Your task to perform on an android device: find snoozed emails in the gmail app Image 0: 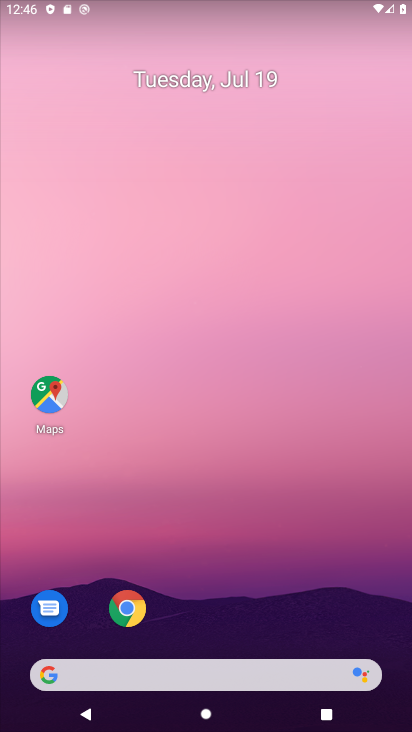
Step 0: drag from (325, 583) to (397, 22)
Your task to perform on an android device: find snoozed emails in the gmail app Image 1: 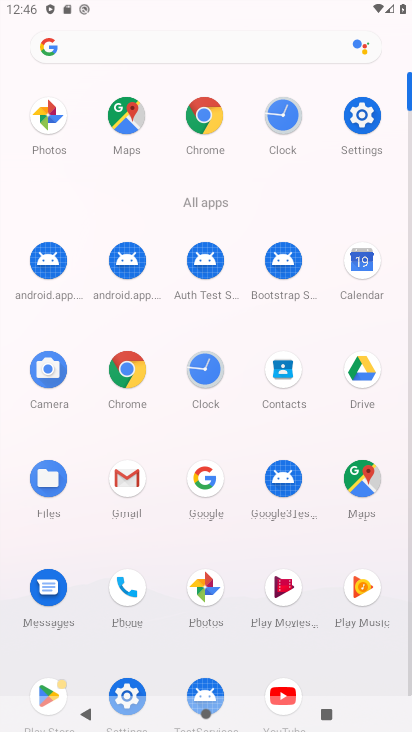
Step 1: click (120, 482)
Your task to perform on an android device: find snoozed emails in the gmail app Image 2: 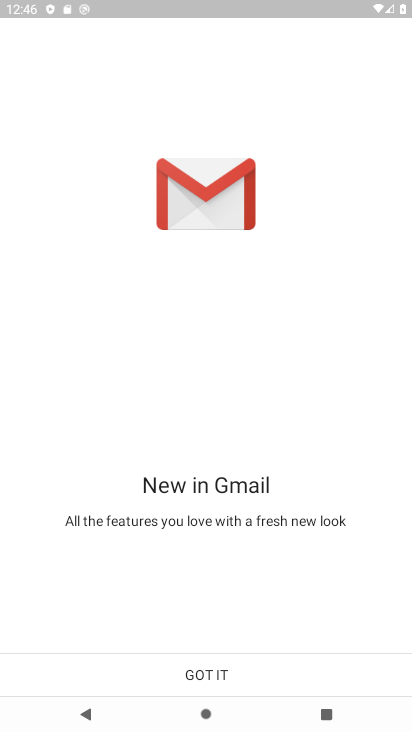
Step 2: click (203, 669)
Your task to perform on an android device: find snoozed emails in the gmail app Image 3: 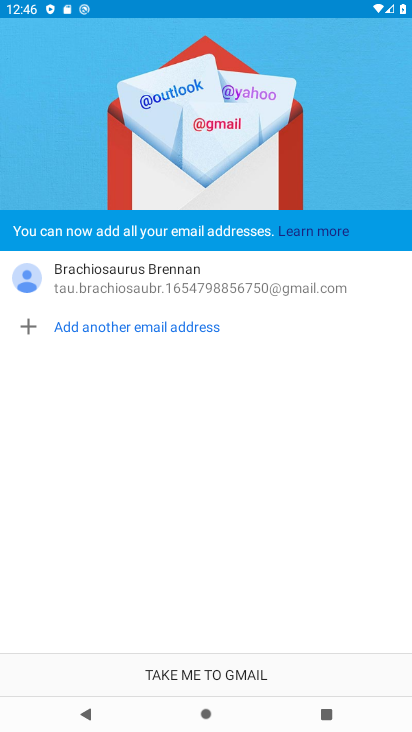
Step 3: click (197, 668)
Your task to perform on an android device: find snoozed emails in the gmail app Image 4: 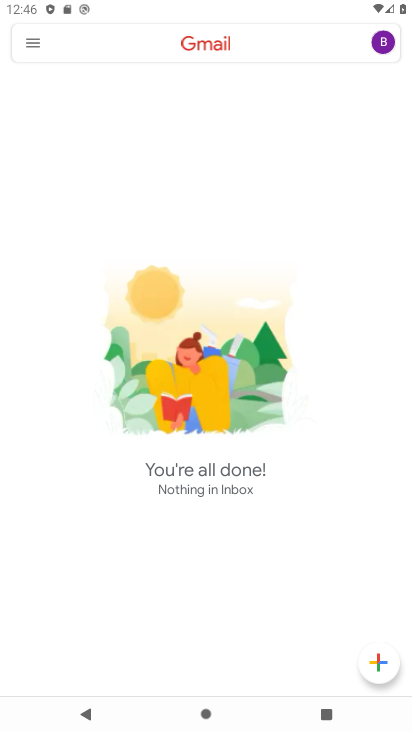
Step 4: click (24, 39)
Your task to perform on an android device: find snoozed emails in the gmail app Image 5: 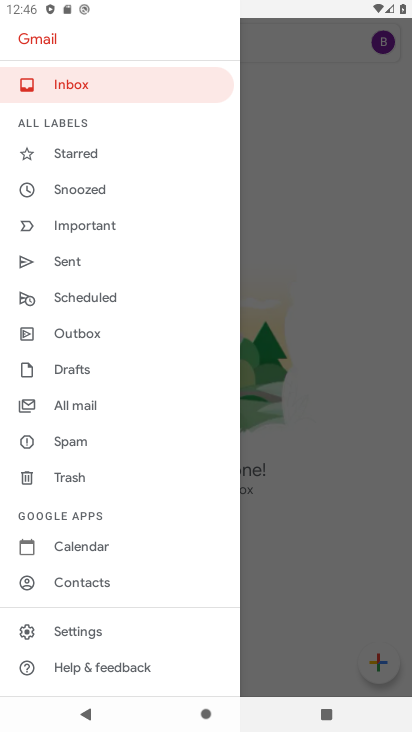
Step 5: click (77, 186)
Your task to perform on an android device: find snoozed emails in the gmail app Image 6: 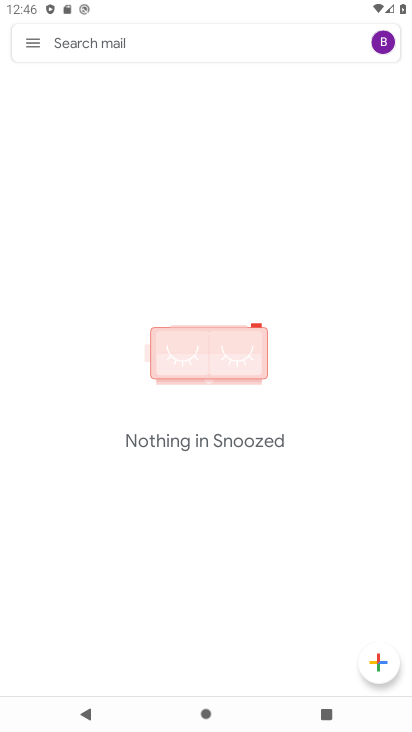
Step 6: task complete